Your task to perform on an android device: Open the web browser Image 0: 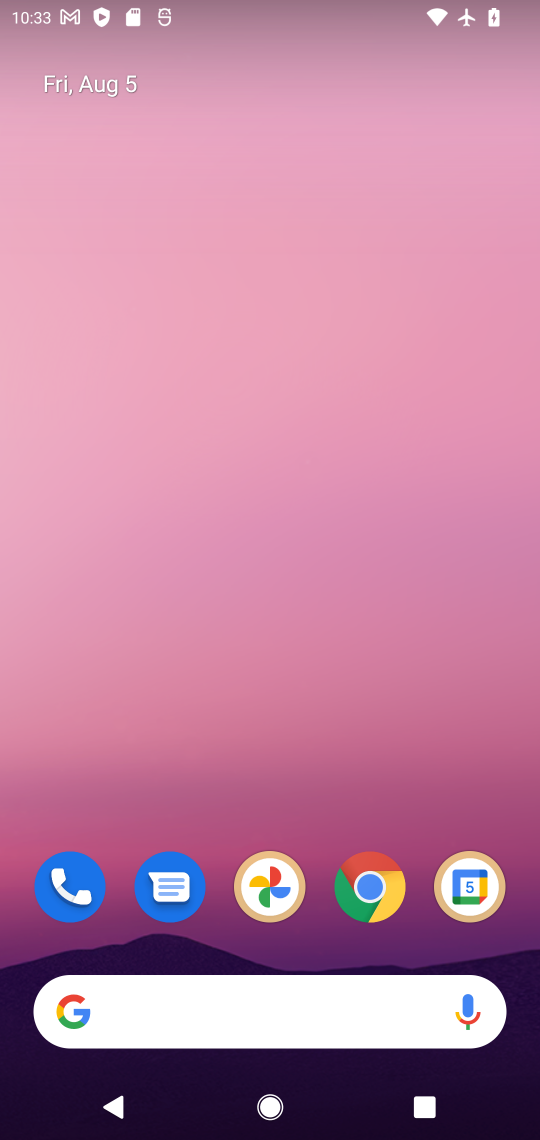
Step 0: press home button
Your task to perform on an android device: Open the web browser Image 1: 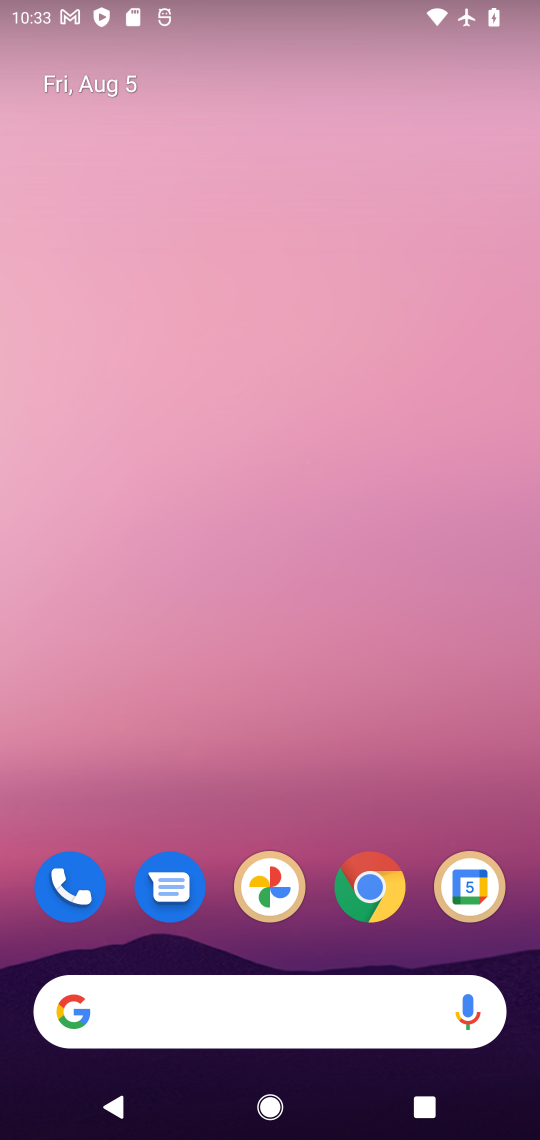
Step 1: click (67, 1016)
Your task to perform on an android device: Open the web browser Image 2: 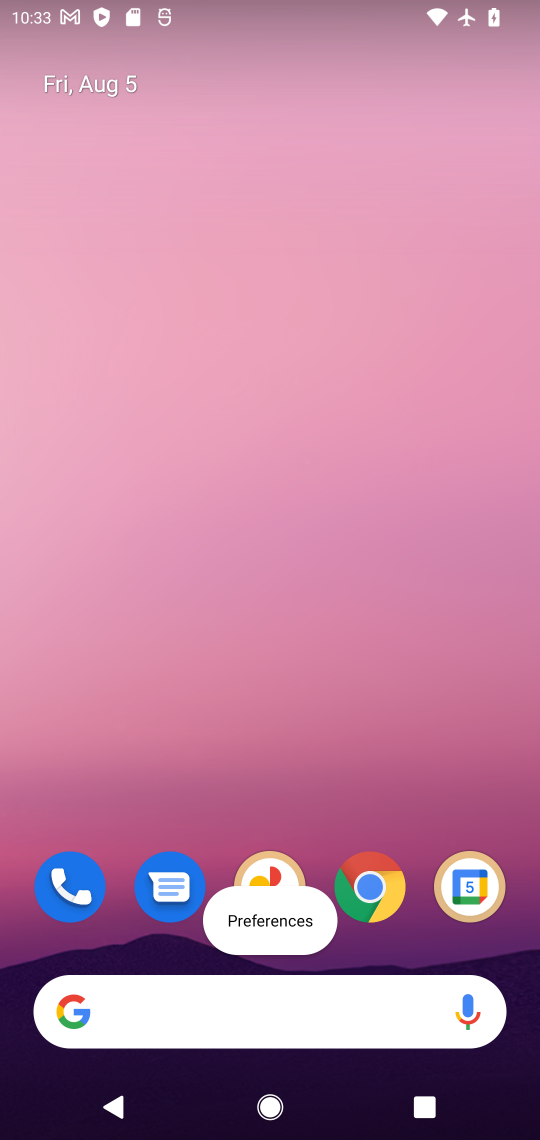
Step 2: click (78, 1014)
Your task to perform on an android device: Open the web browser Image 3: 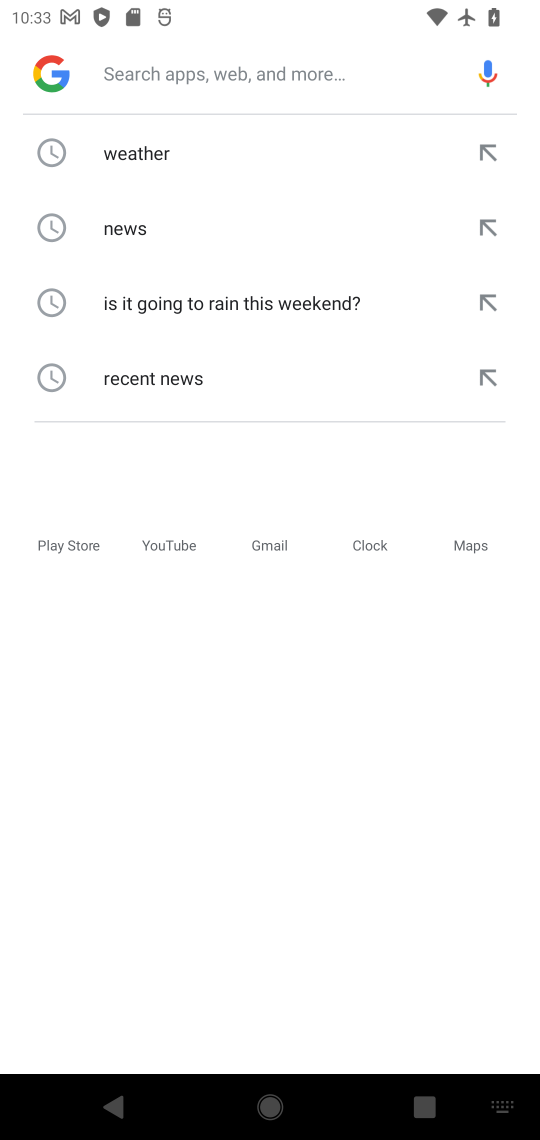
Step 3: task complete